Your task to perform on an android device: Open wifi settings Image 0: 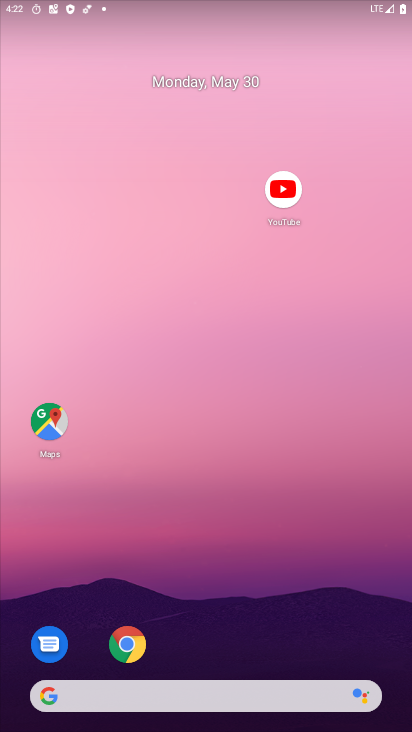
Step 0: click (288, 427)
Your task to perform on an android device: Open wifi settings Image 1: 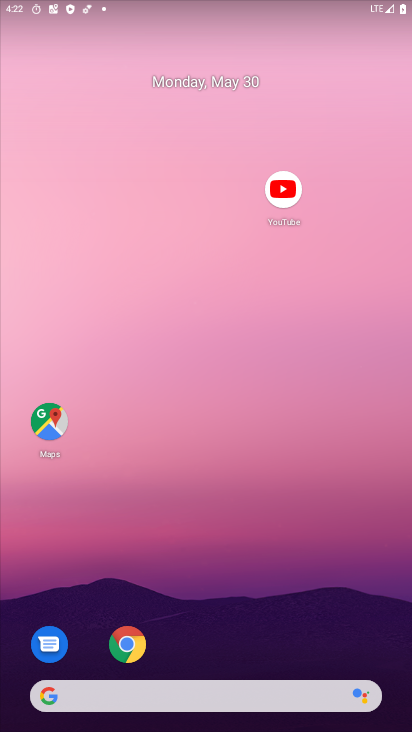
Step 1: drag from (183, 10) to (161, 617)
Your task to perform on an android device: Open wifi settings Image 2: 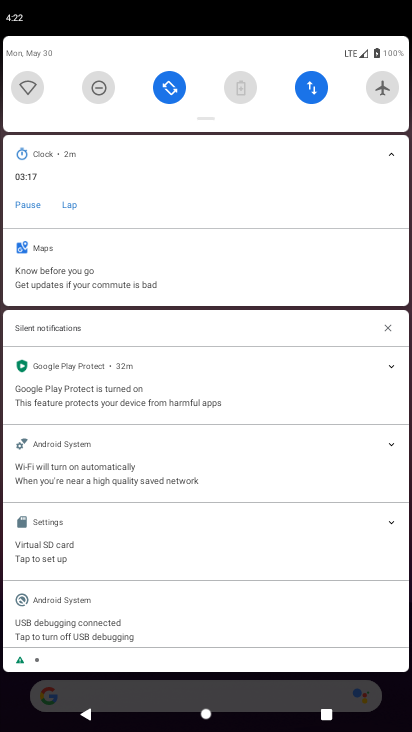
Step 2: click (33, 92)
Your task to perform on an android device: Open wifi settings Image 3: 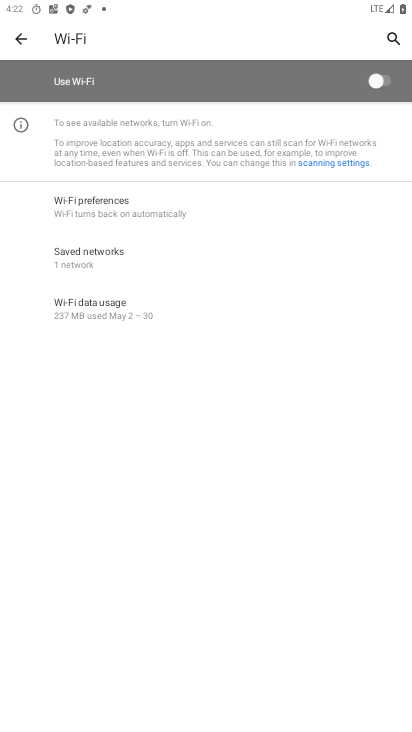
Step 3: task complete